Your task to perform on an android device: snooze an email in the gmail app Image 0: 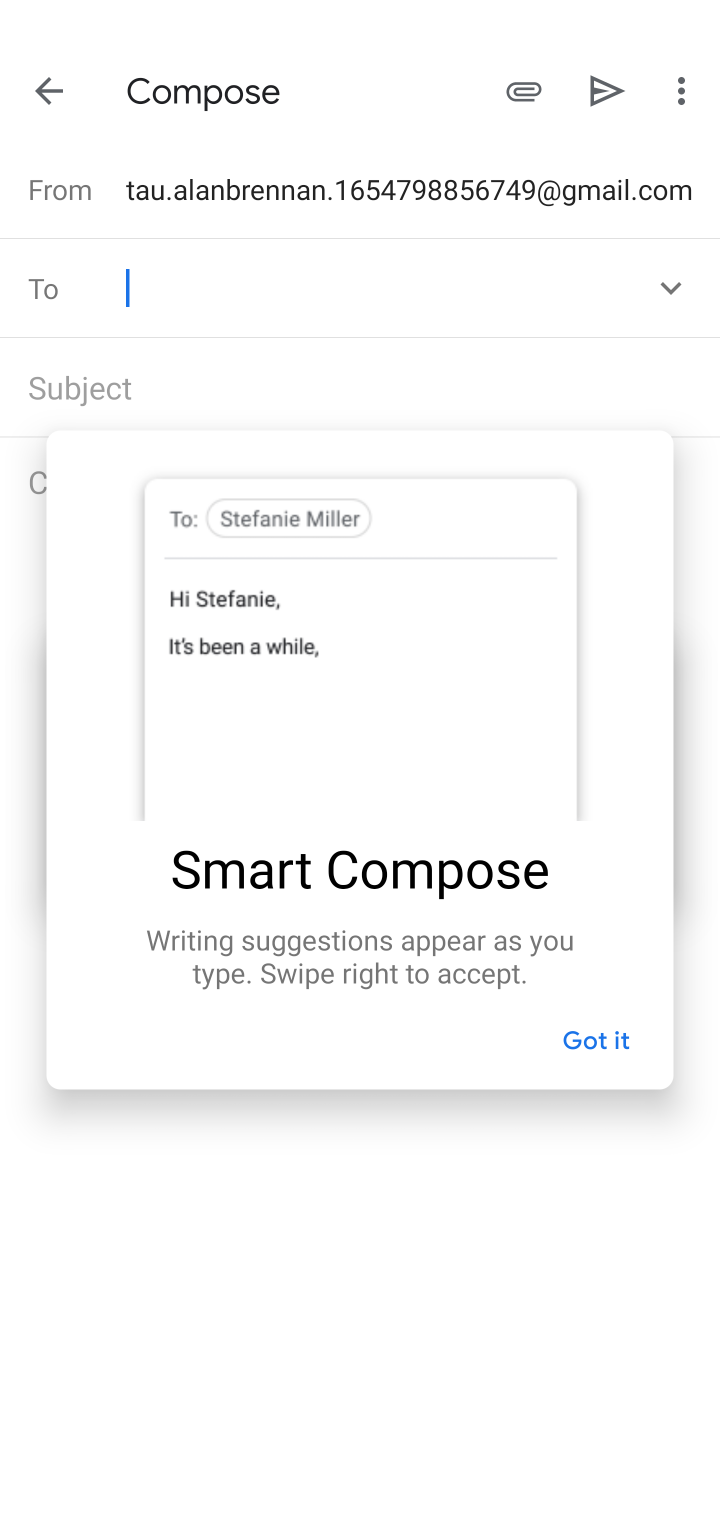
Step 0: press back button
Your task to perform on an android device: snooze an email in the gmail app Image 1: 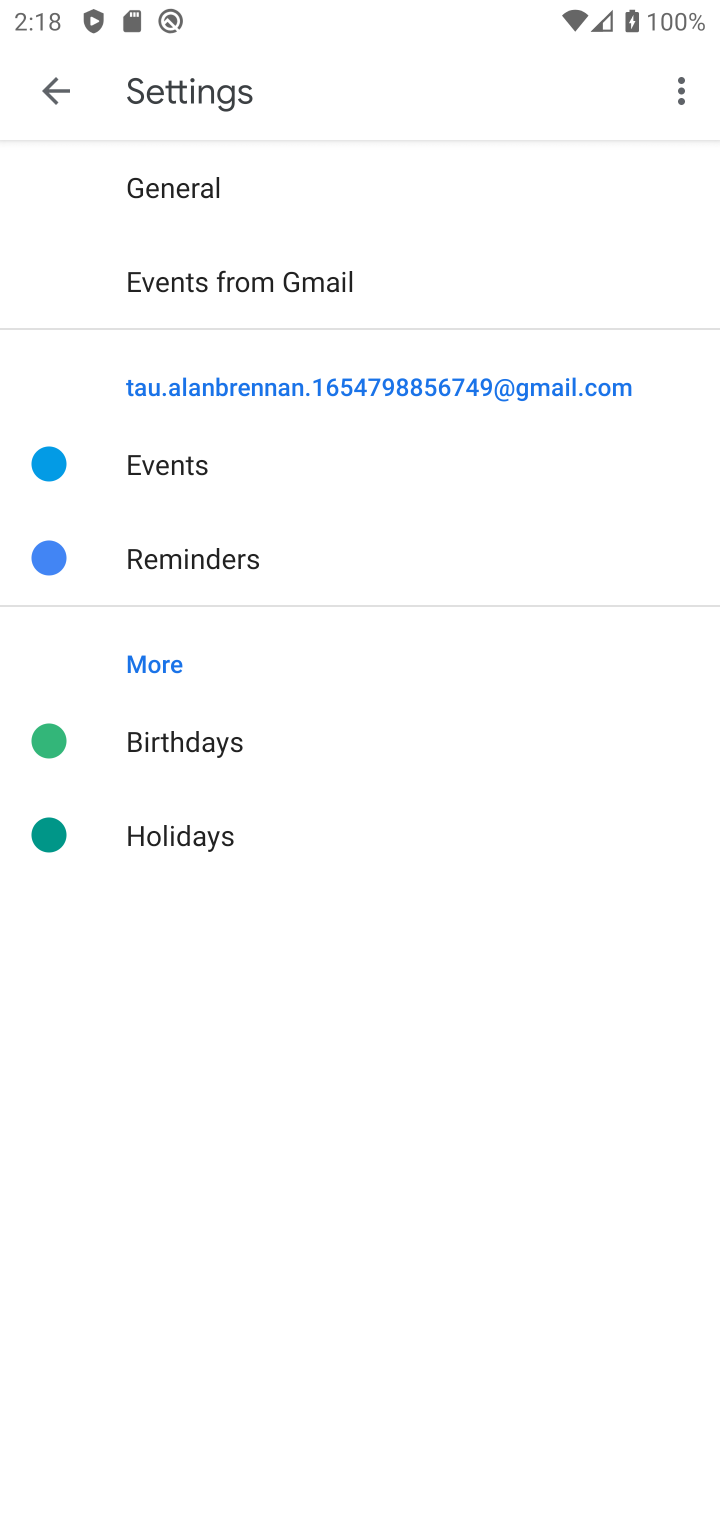
Step 1: press home button
Your task to perform on an android device: snooze an email in the gmail app Image 2: 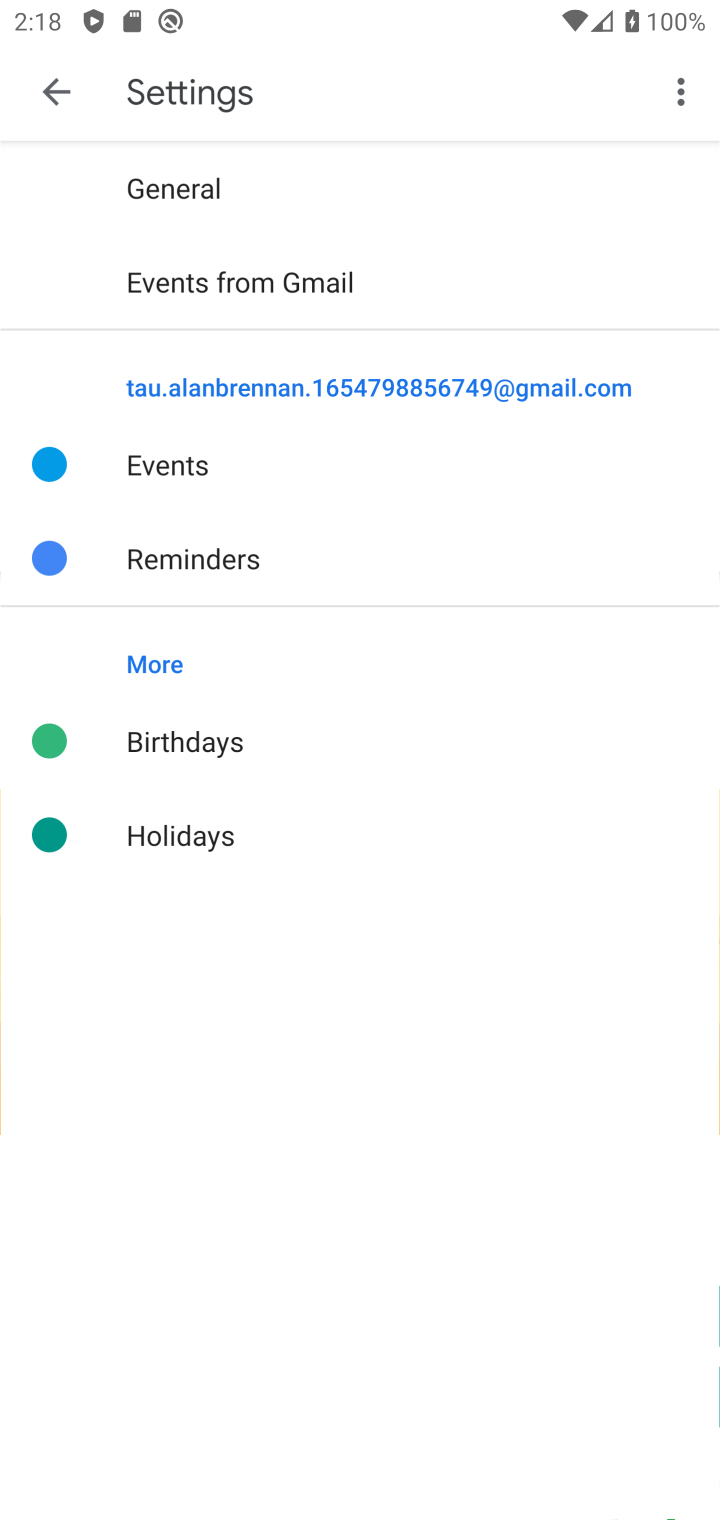
Step 2: click (50, 86)
Your task to perform on an android device: snooze an email in the gmail app Image 3: 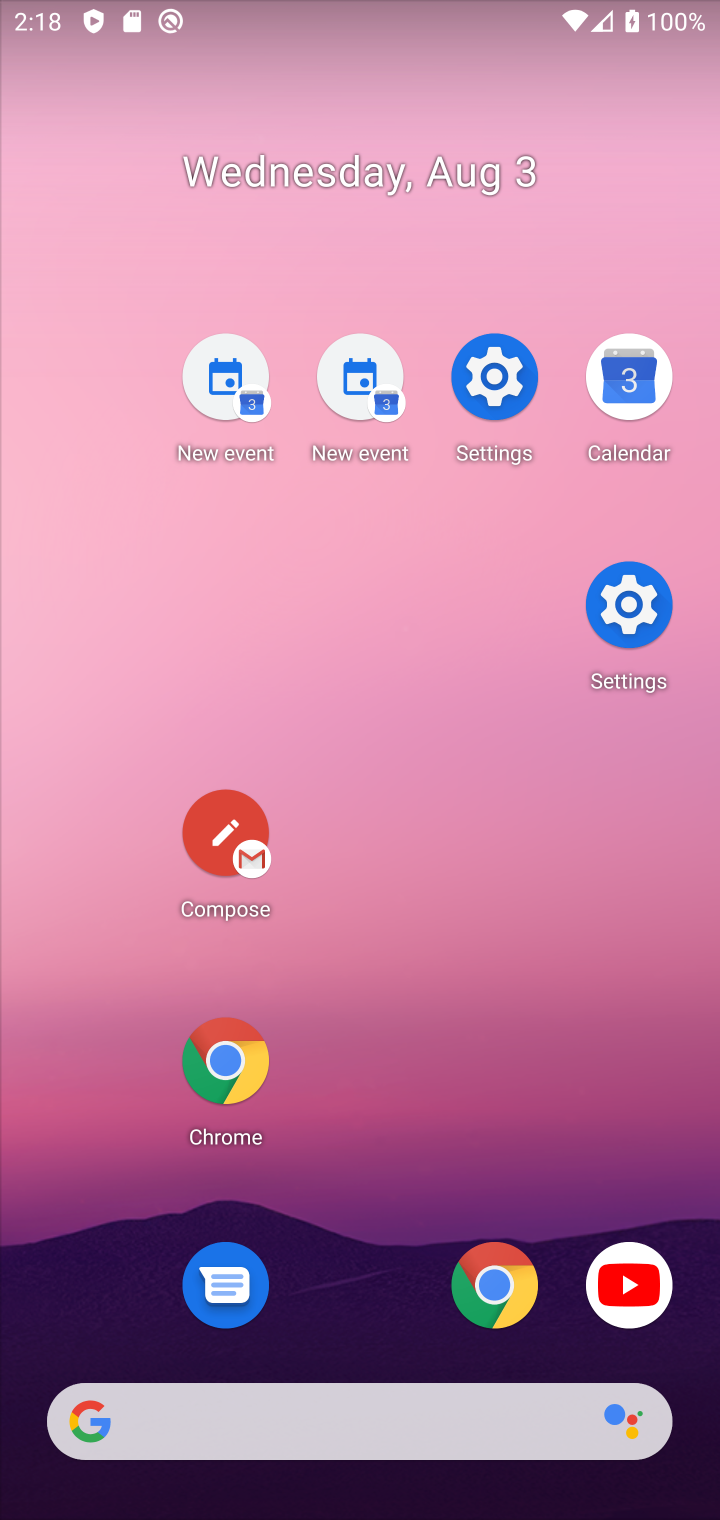
Step 3: drag from (343, 1347) to (384, 380)
Your task to perform on an android device: snooze an email in the gmail app Image 4: 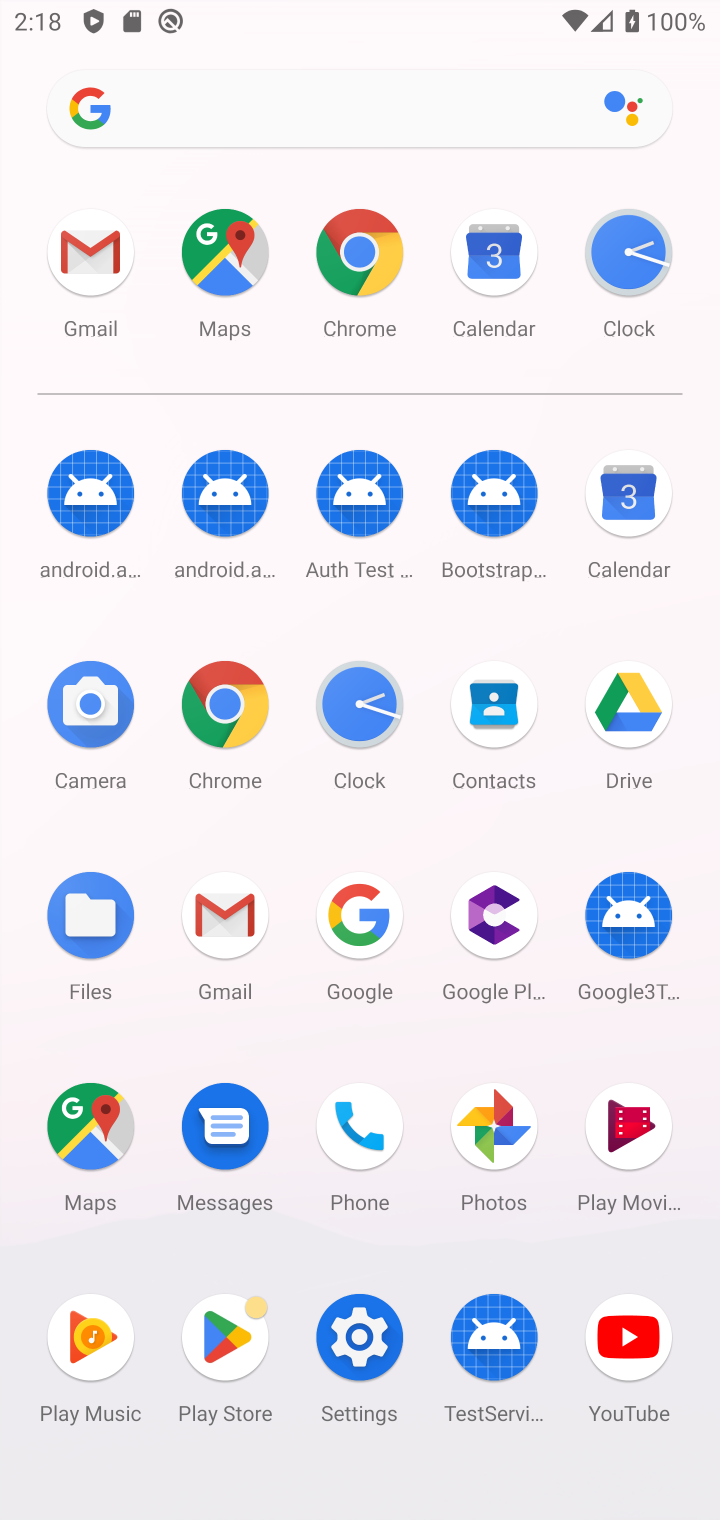
Step 4: click (228, 924)
Your task to perform on an android device: snooze an email in the gmail app Image 5: 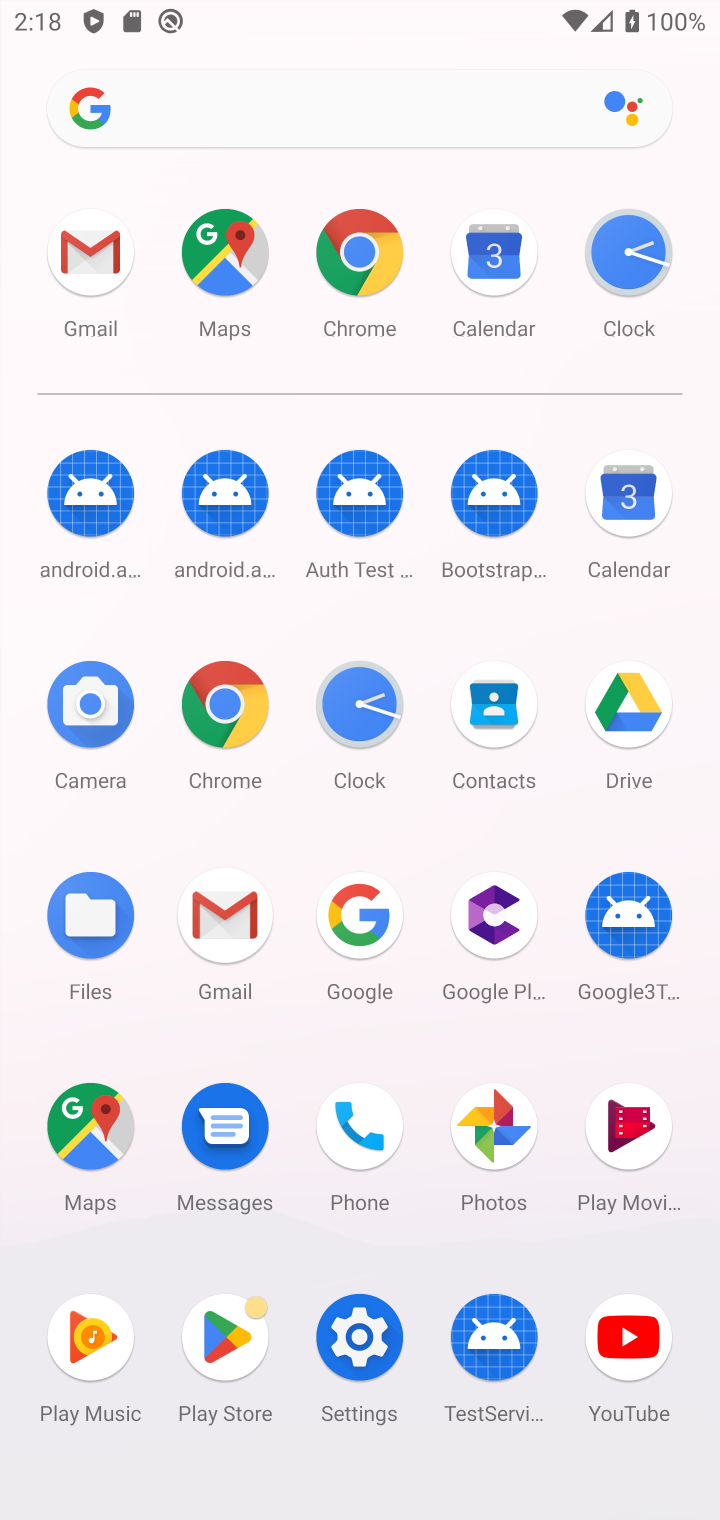
Step 5: click (227, 922)
Your task to perform on an android device: snooze an email in the gmail app Image 6: 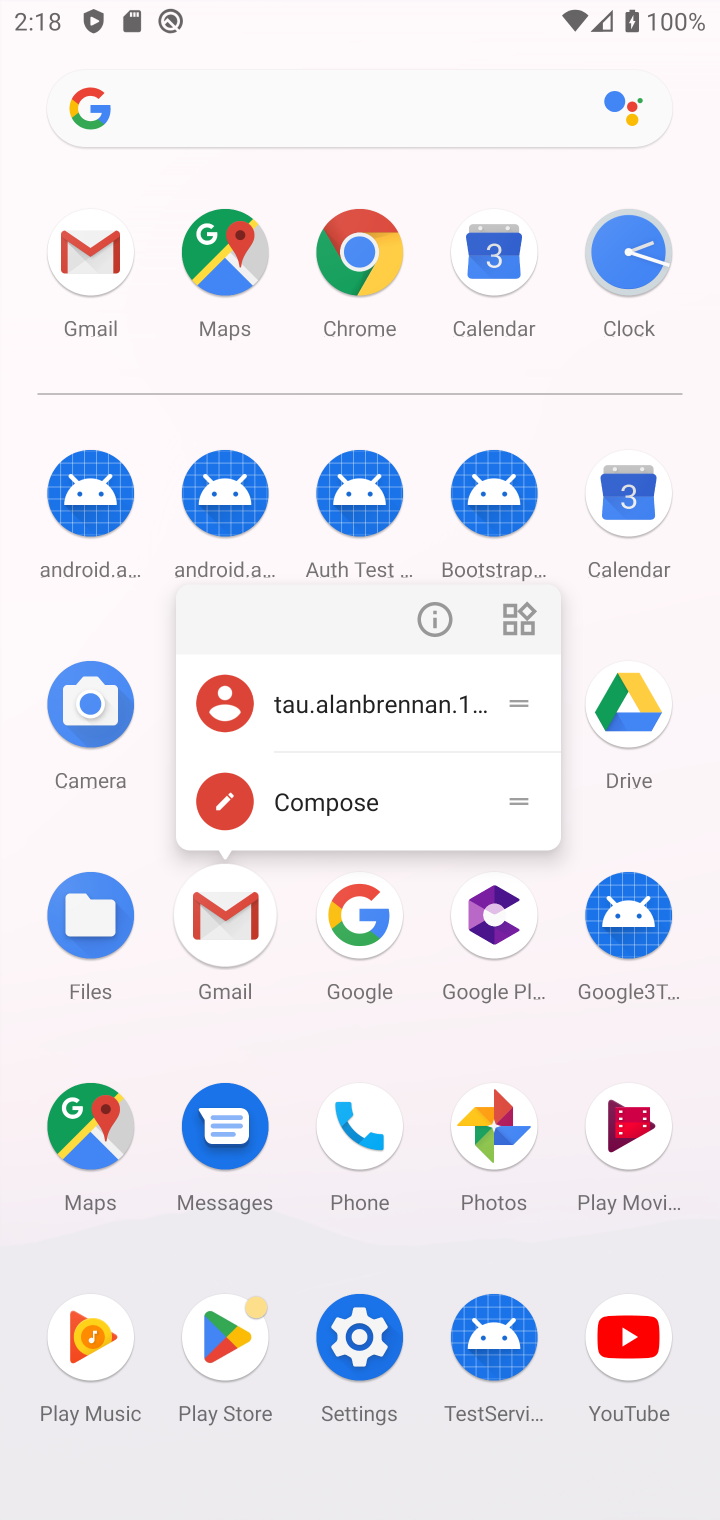
Step 6: click (223, 924)
Your task to perform on an android device: snooze an email in the gmail app Image 7: 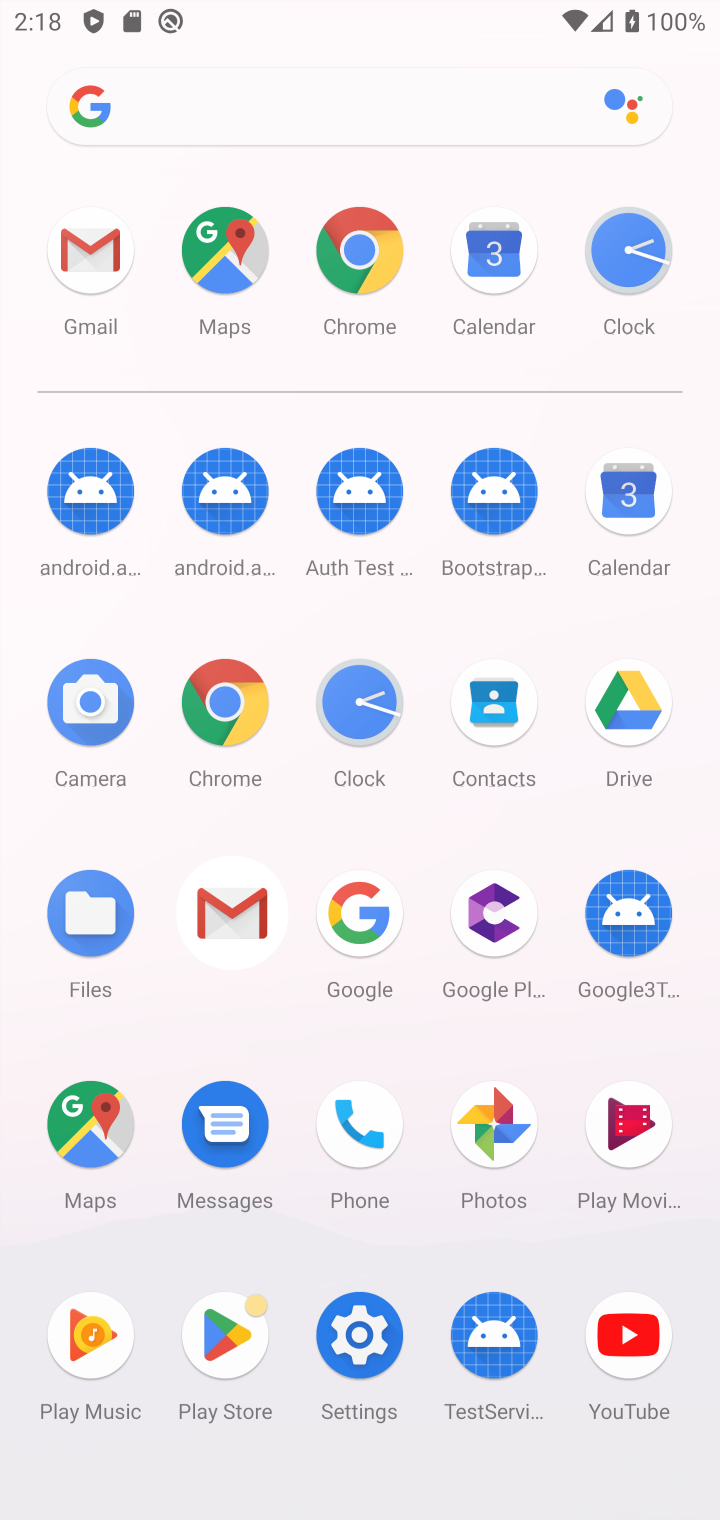
Step 7: click (209, 901)
Your task to perform on an android device: snooze an email in the gmail app Image 8: 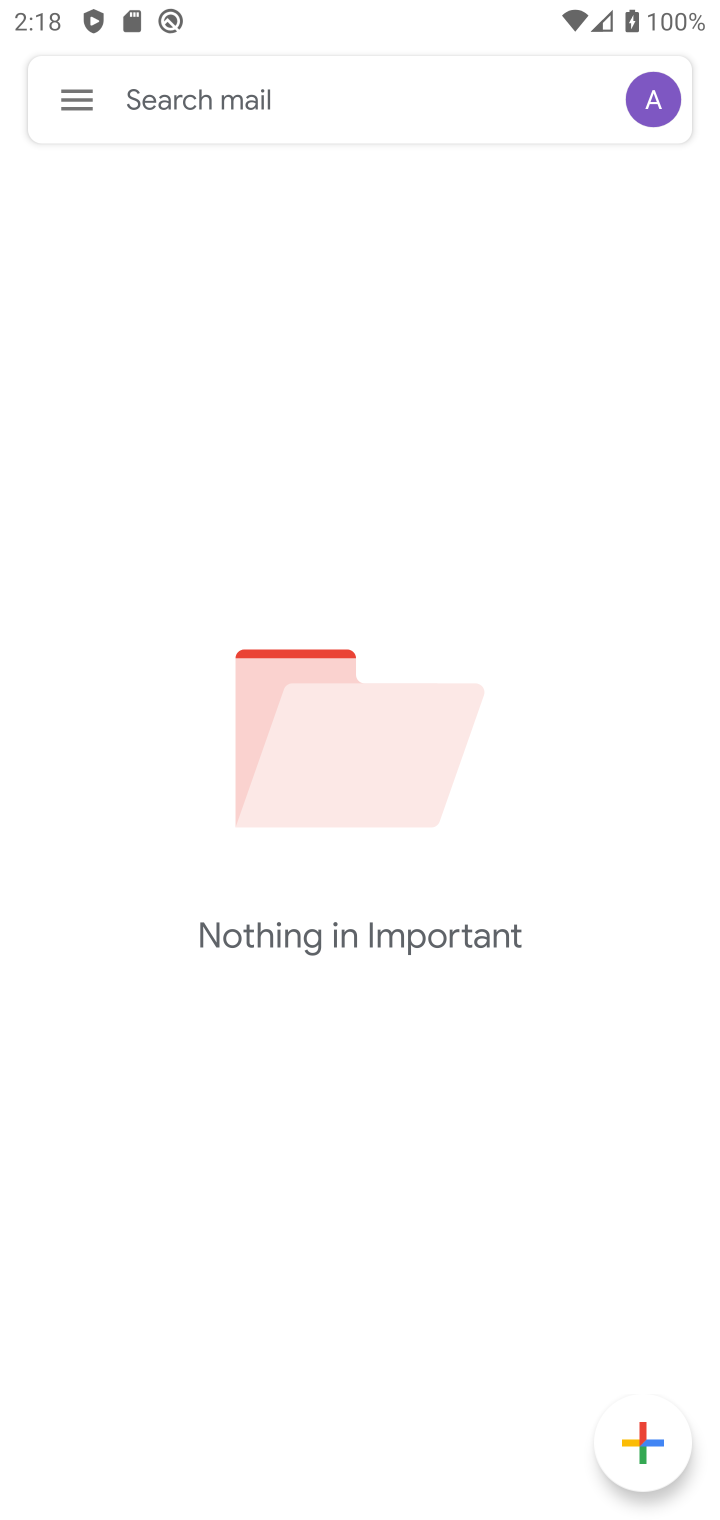
Step 8: click (209, 901)
Your task to perform on an android device: snooze an email in the gmail app Image 9: 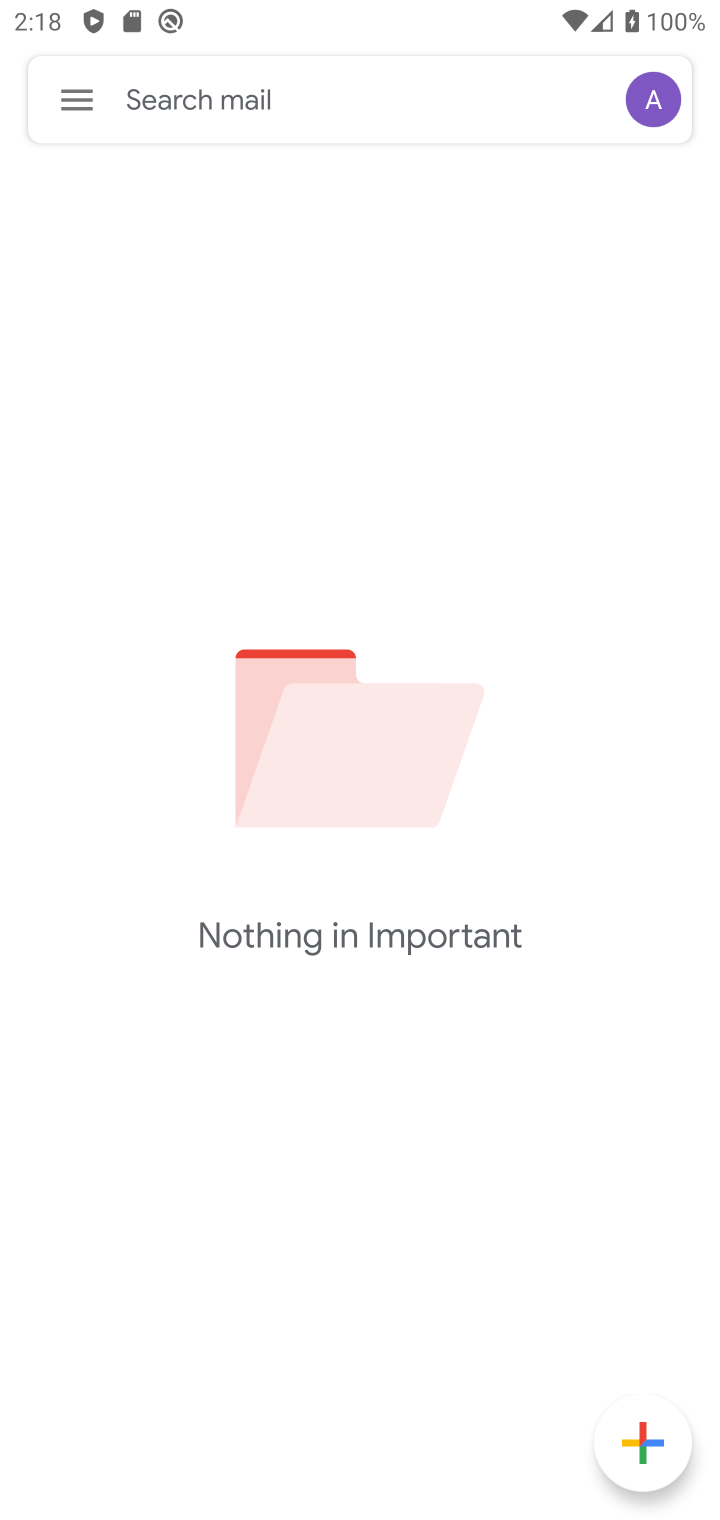
Step 9: click (72, 107)
Your task to perform on an android device: snooze an email in the gmail app Image 10: 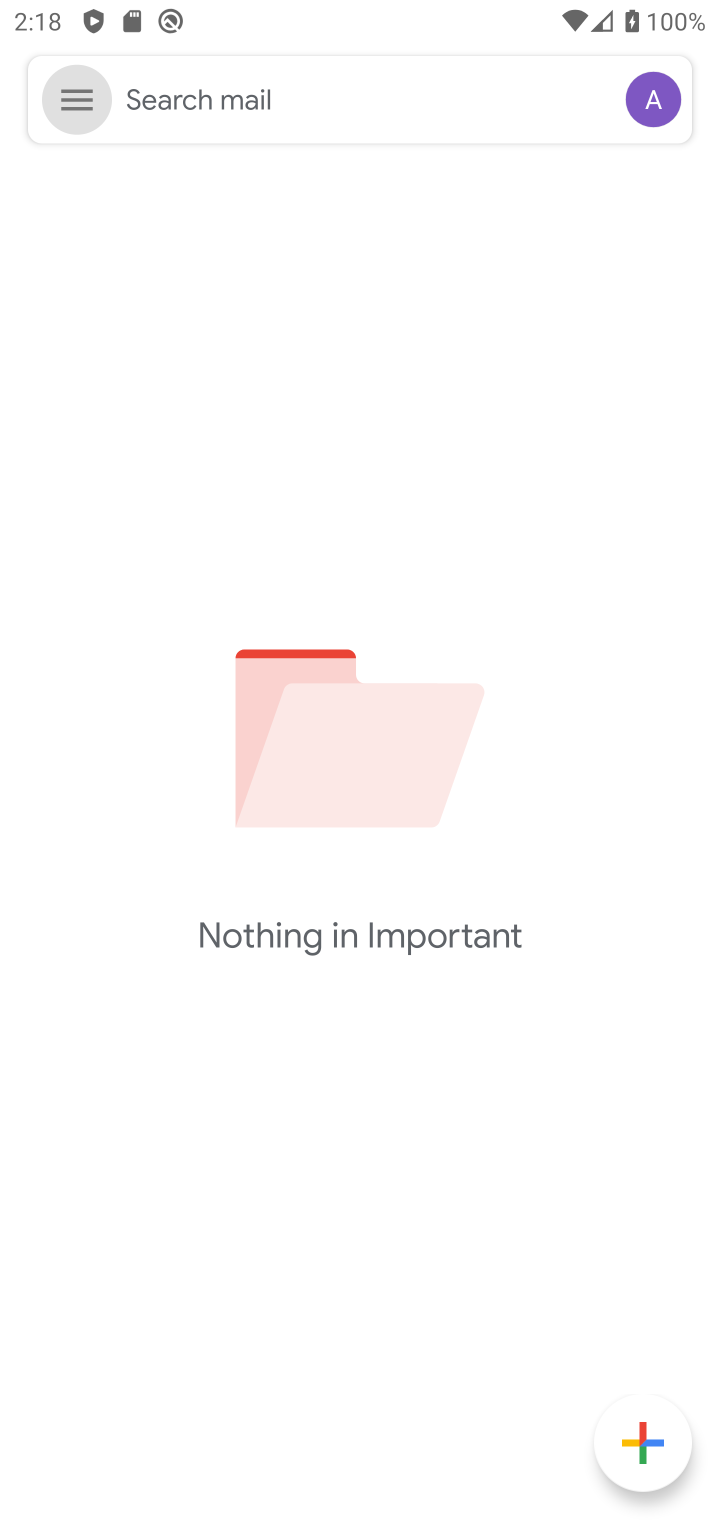
Step 10: click (74, 115)
Your task to perform on an android device: snooze an email in the gmail app Image 11: 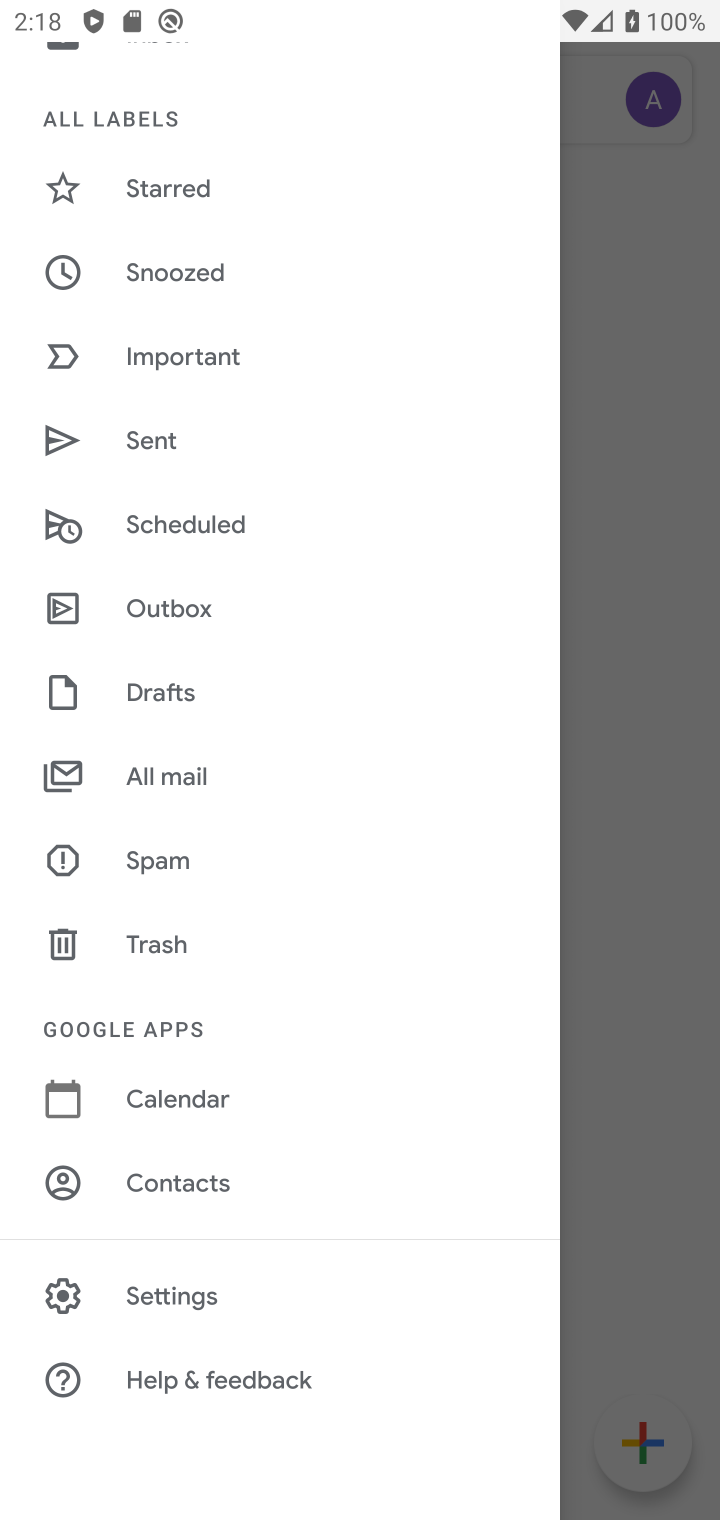
Step 11: click (166, 277)
Your task to perform on an android device: snooze an email in the gmail app Image 12: 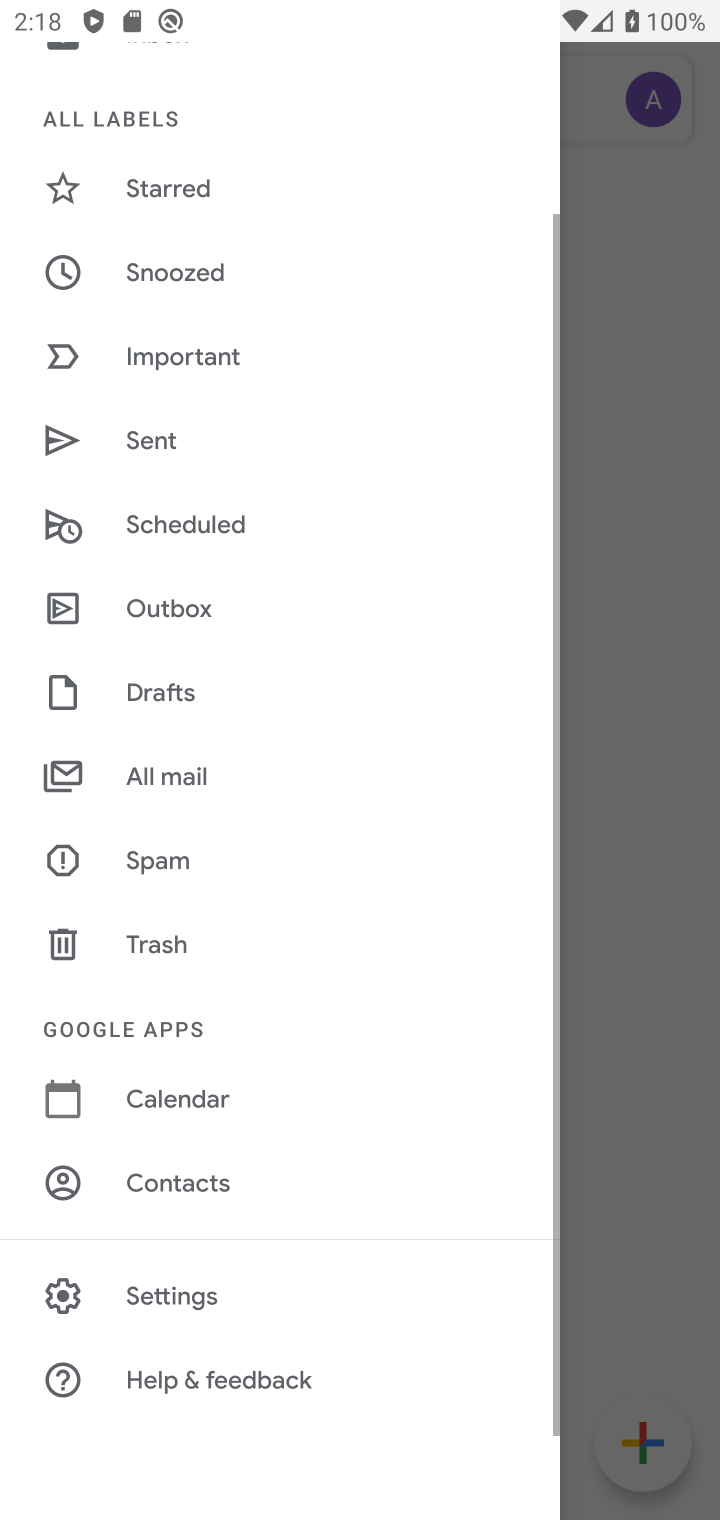
Step 12: click (166, 277)
Your task to perform on an android device: snooze an email in the gmail app Image 13: 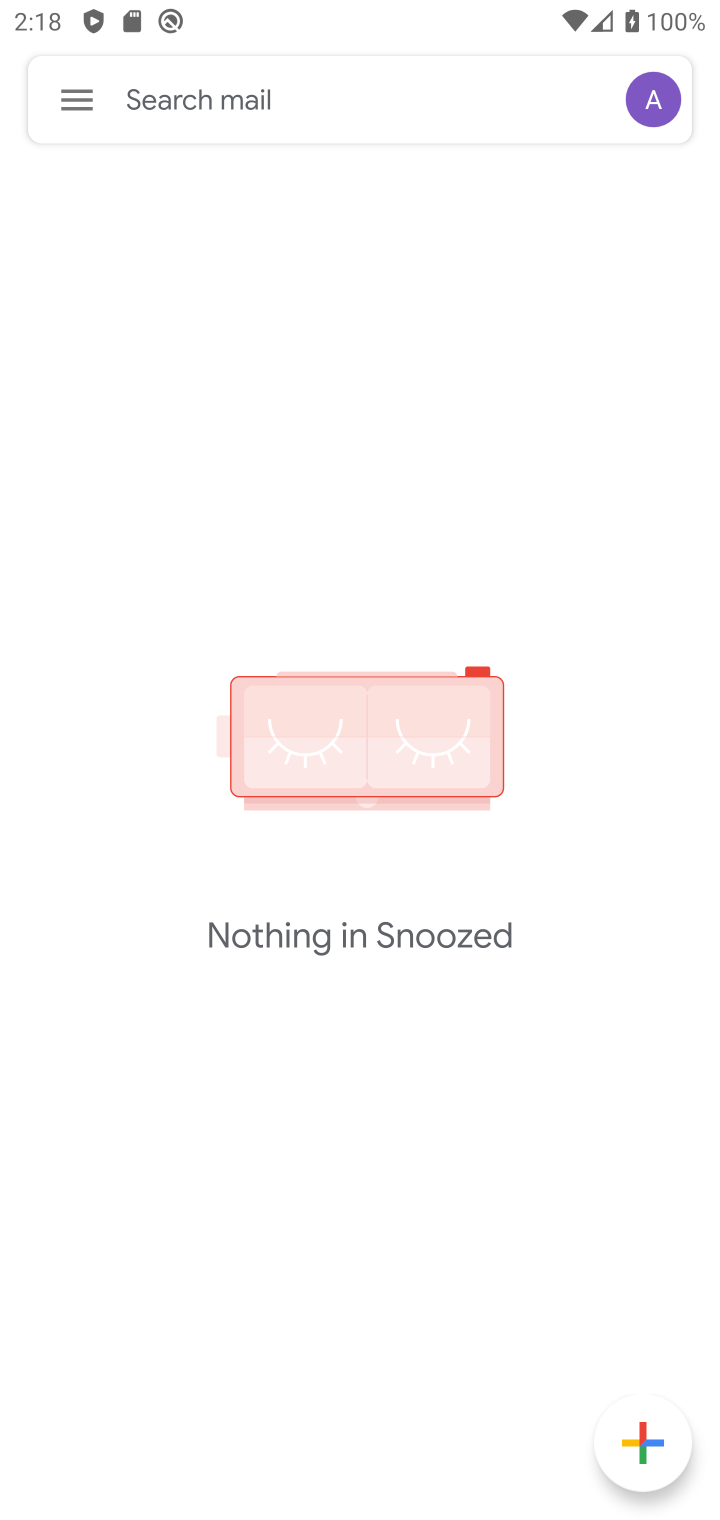
Step 13: click (76, 108)
Your task to perform on an android device: snooze an email in the gmail app Image 14: 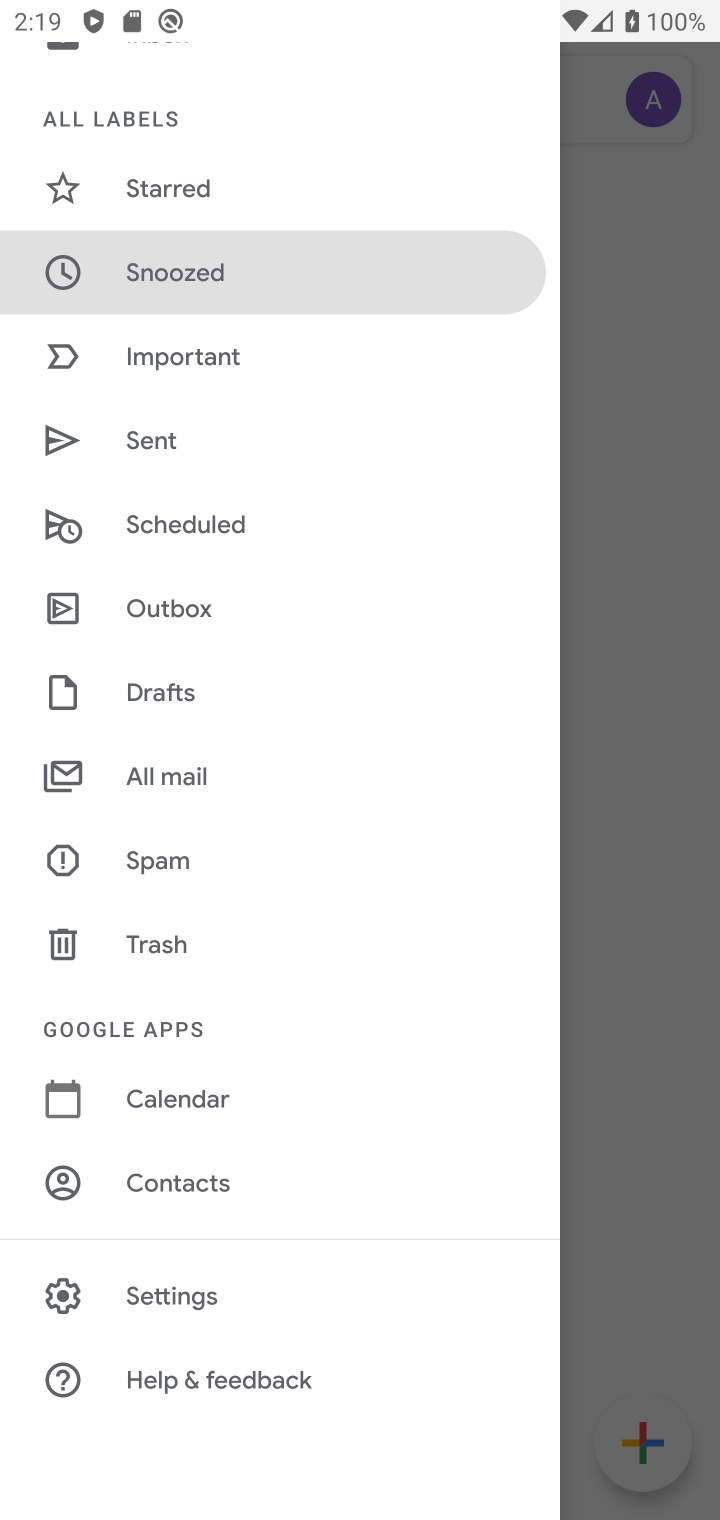
Step 14: click (168, 277)
Your task to perform on an android device: snooze an email in the gmail app Image 15: 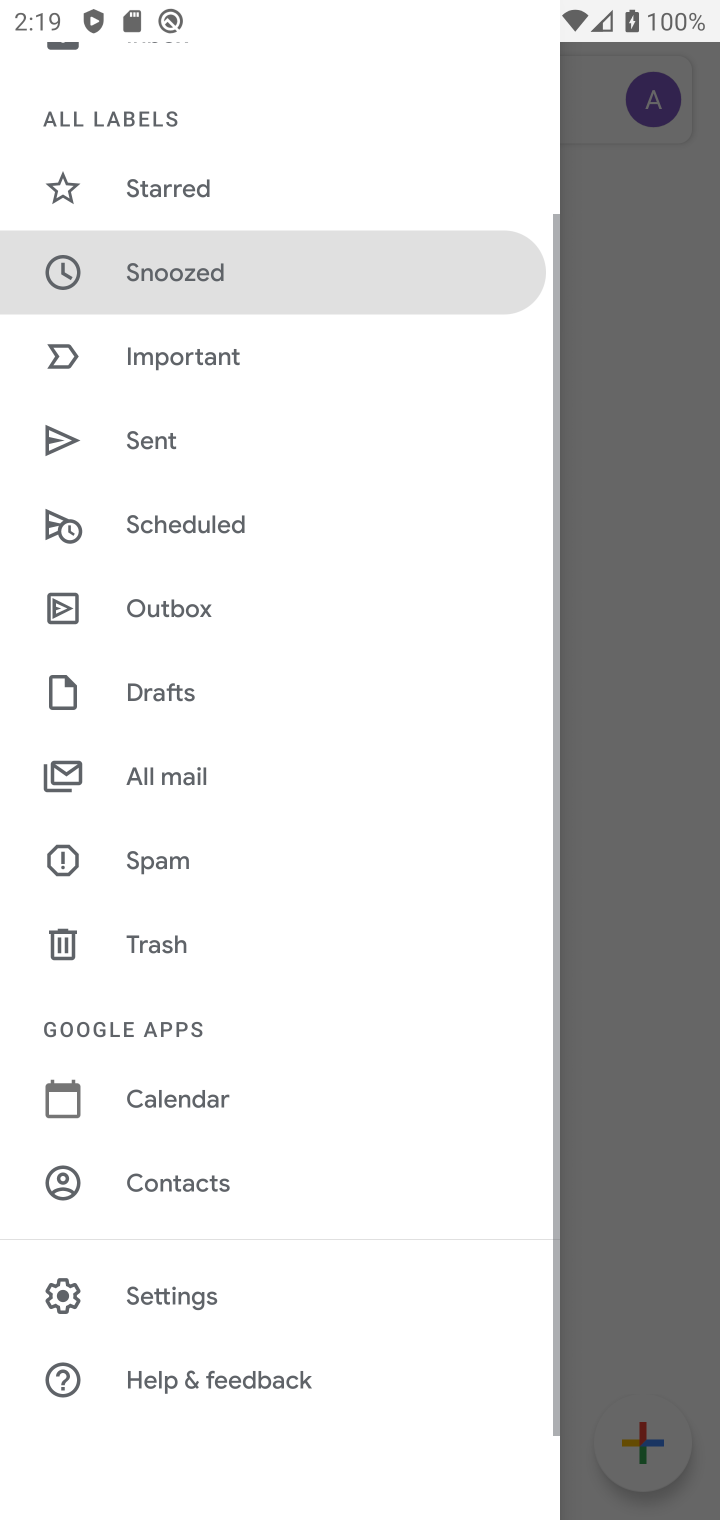
Step 15: click (170, 267)
Your task to perform on an android device: snooze an email in the gmail app Image 16: 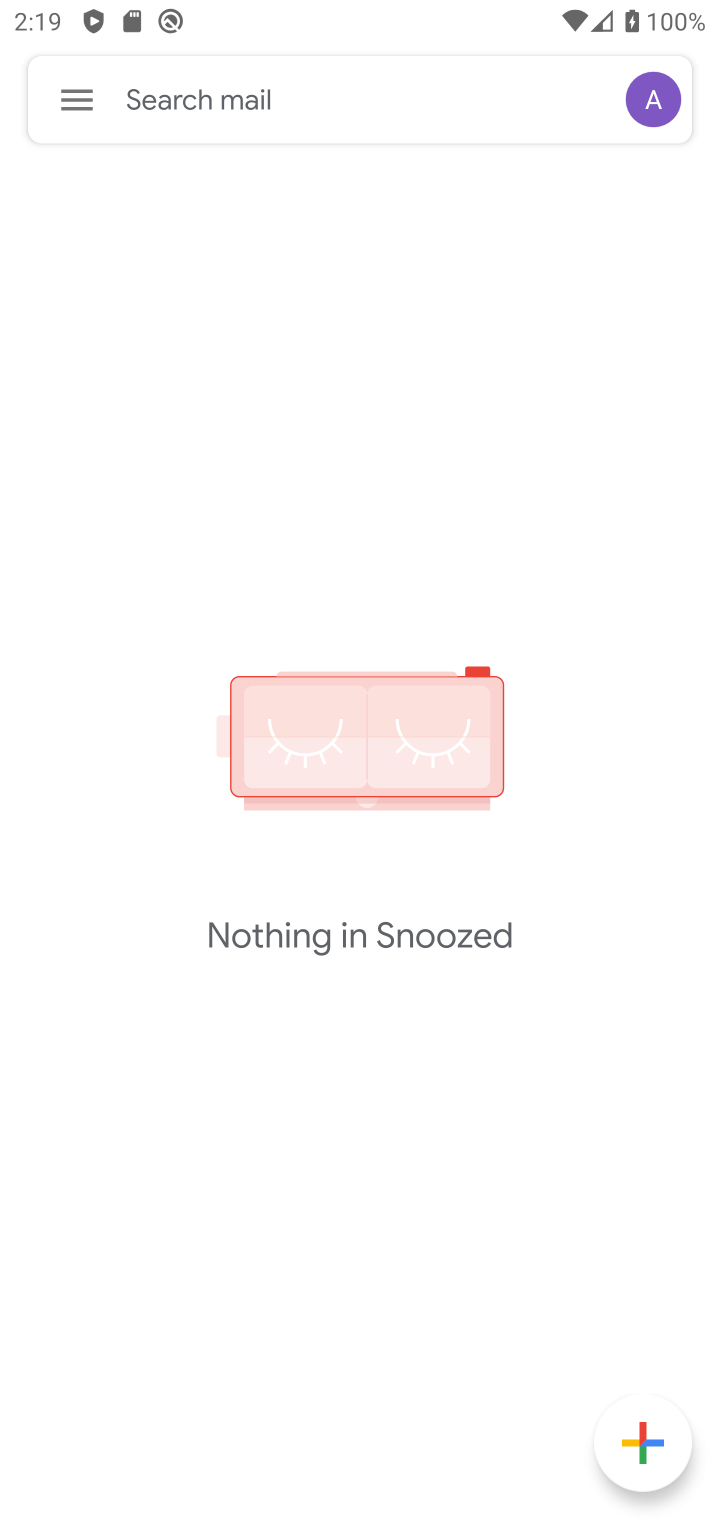
Step 16: task complete